Your task to perform on an android device: turn pop-ups off in chrome Image 0: 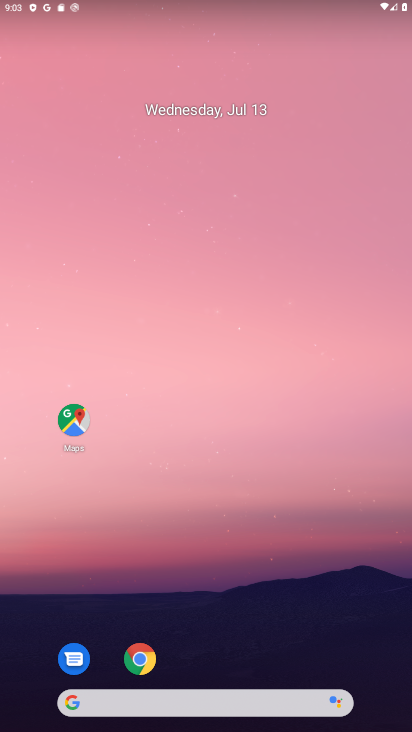
Step 0: press home button
Your task to perform on an android device: turn pop-ups off in chrome Image 1: 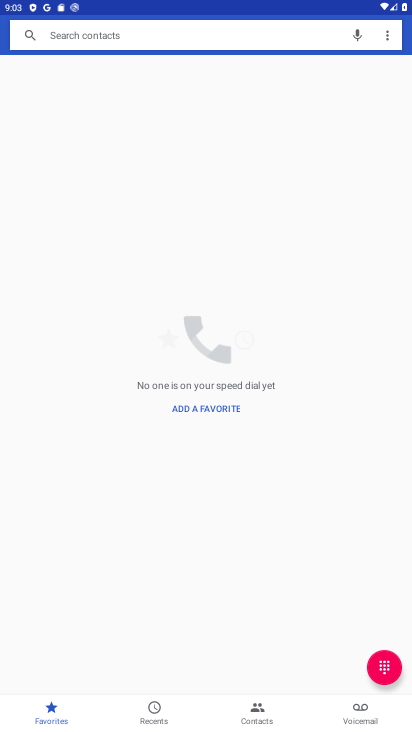
Step 1: drag from (244, 272) to (243, 121)
Your task to perform on an android device: turn pop-ups off in chrome Image 2: 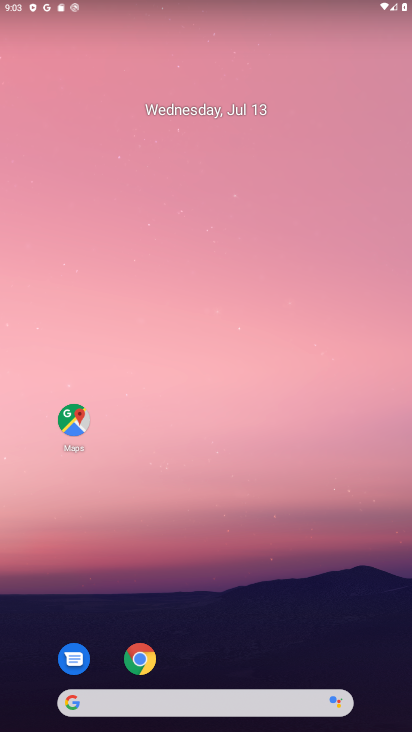
Step 2: click (141, 658)
Your task to perform on an android device: turn pop-ups off in chrome Image 3: 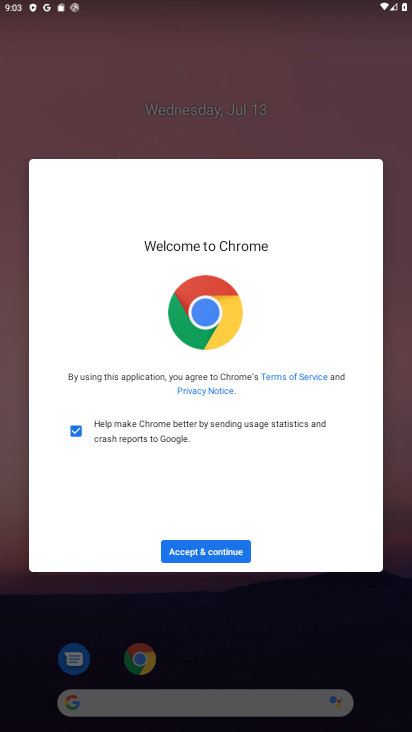
Step 3: click (216, 548)
Your task to perform on an android device: turn pop-ups off in chrome Image 4: 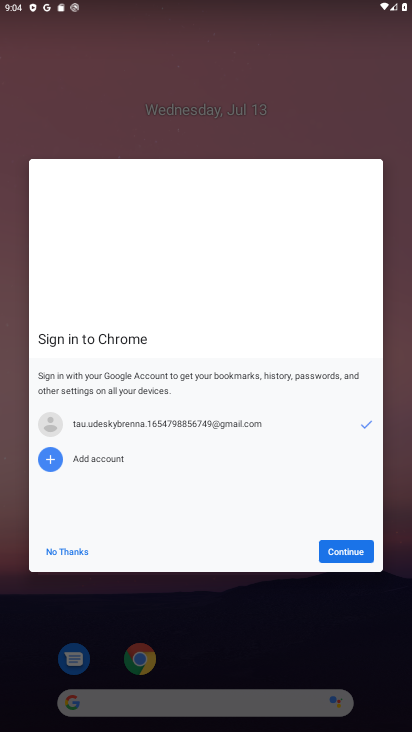
Step 4: click (349, 547)
Your task to perform on an android device: turn pop-ups off in chrome Image 5: 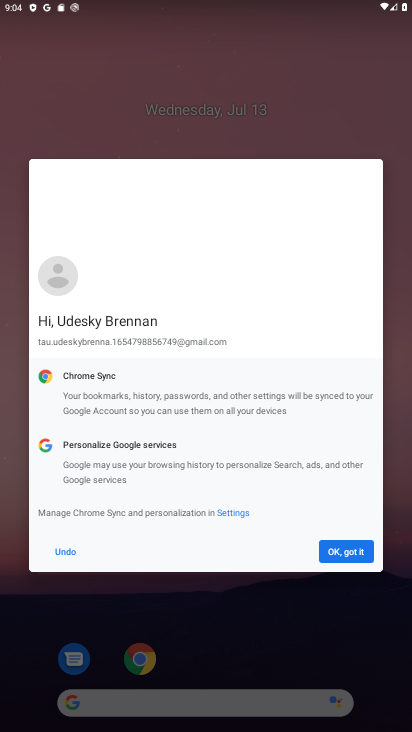
Step 5: click (349, 547)
Your task to perform on an android device: turn pop-ups off in chrome Image 6: 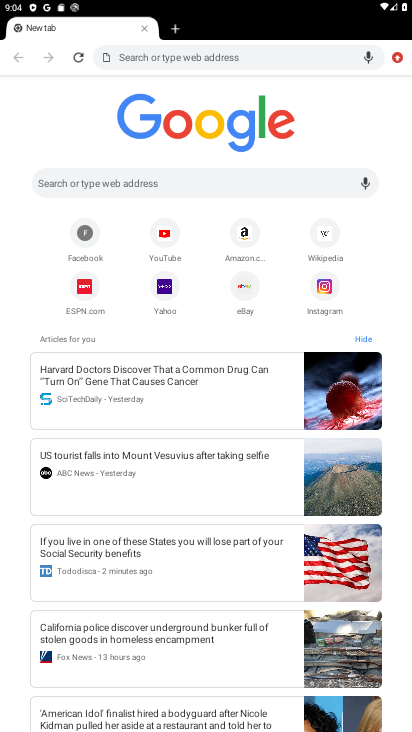
Step 6: click (397, 60)
Your task to perform on an android device: turn pop-ups off in chrome Image 7: 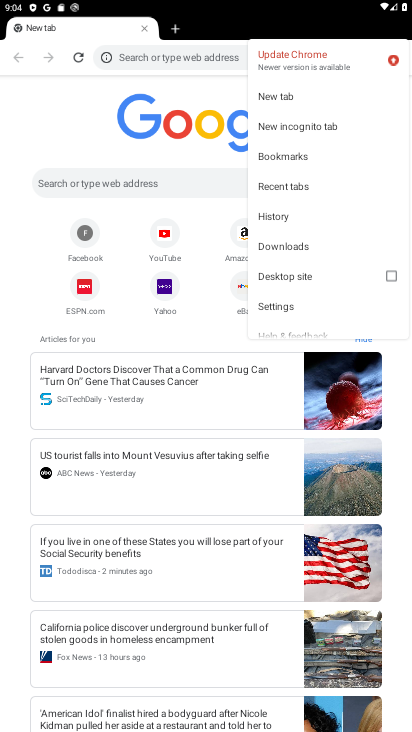
Step 7: click (287, 303)
Your task to perform on an android device: turn pop-ups off in chrome Image 8: 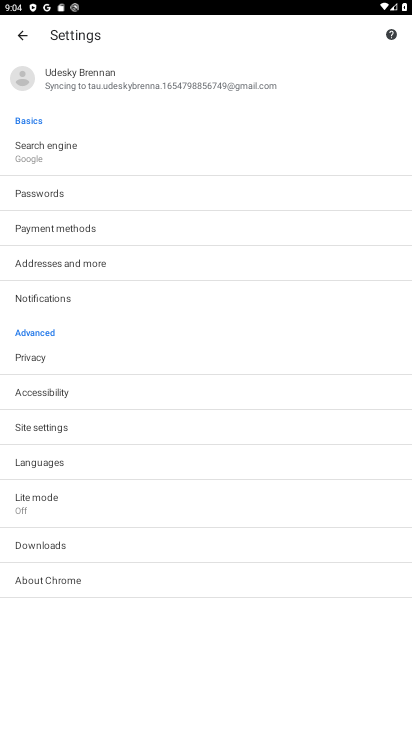
Step 8: click (83, 423)
Your task to perform on an android device: turn pop-ups off in chrome Image 9: 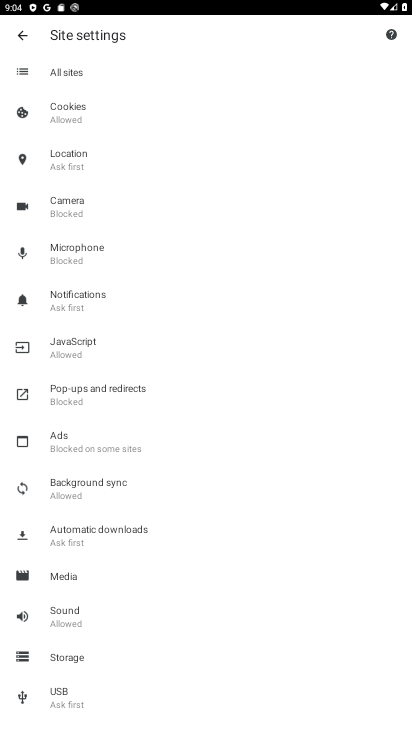
Step 9: click (148, 398)
Your task to perform on an android device: turn pop-ups off in chrome Image 10: 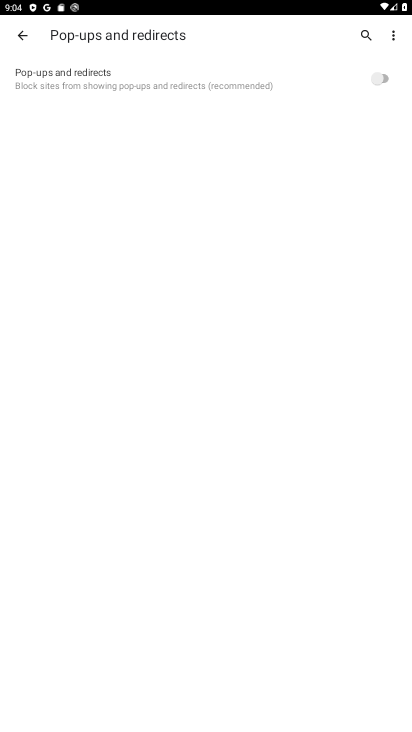
Step 10: task complete